Your task to perform on an android device: Google the capital of Mexico Image 0: 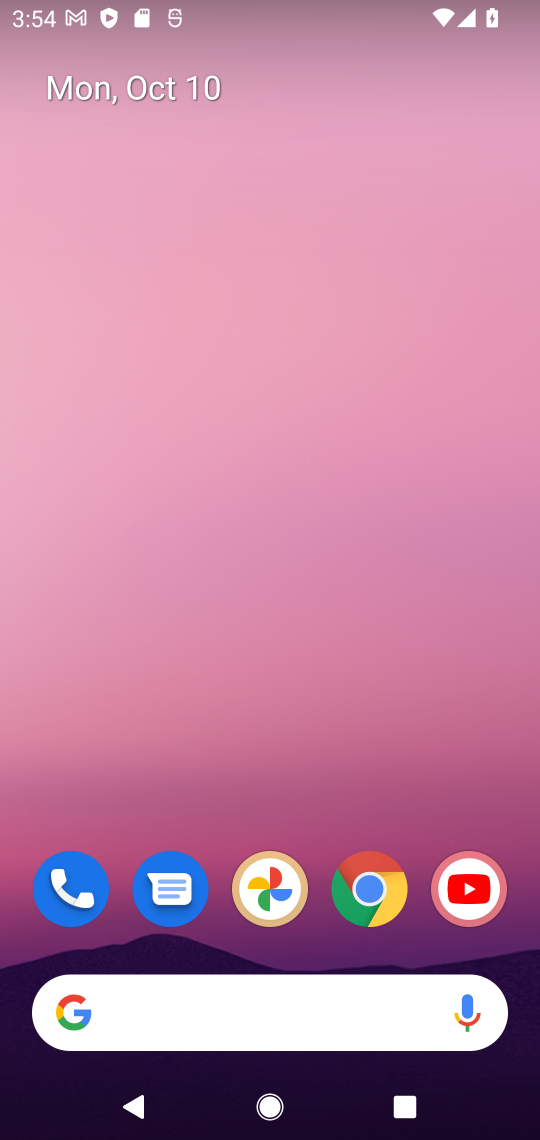
Step 0: click (369, 888)
Your task to perform on an android device: Google the capital of Mexico Image 1: 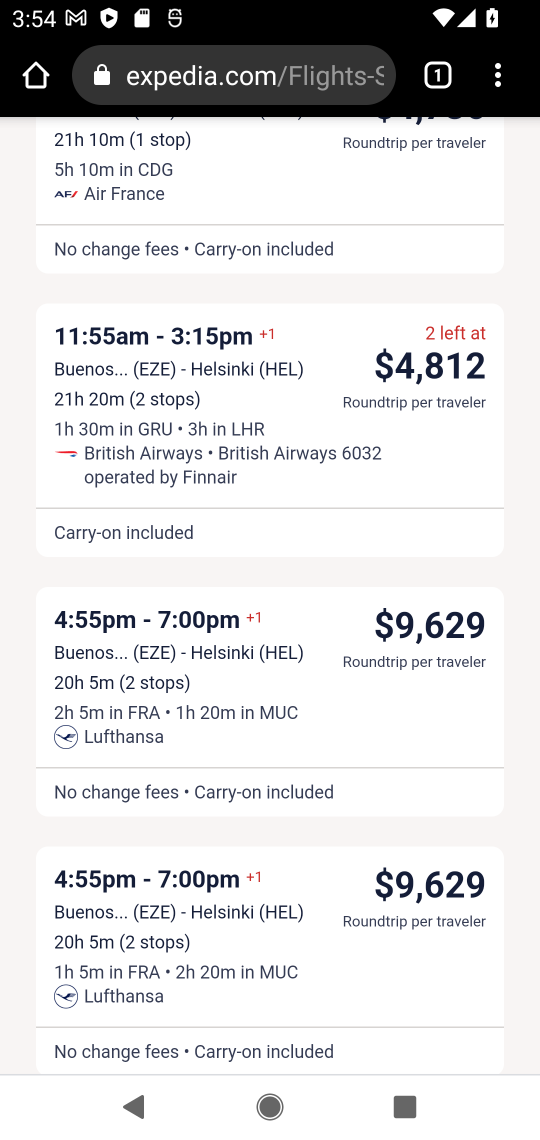
Step 1: click (297, 59)
Your task to perform on an android device: Google the capital of Mexico Image 2: 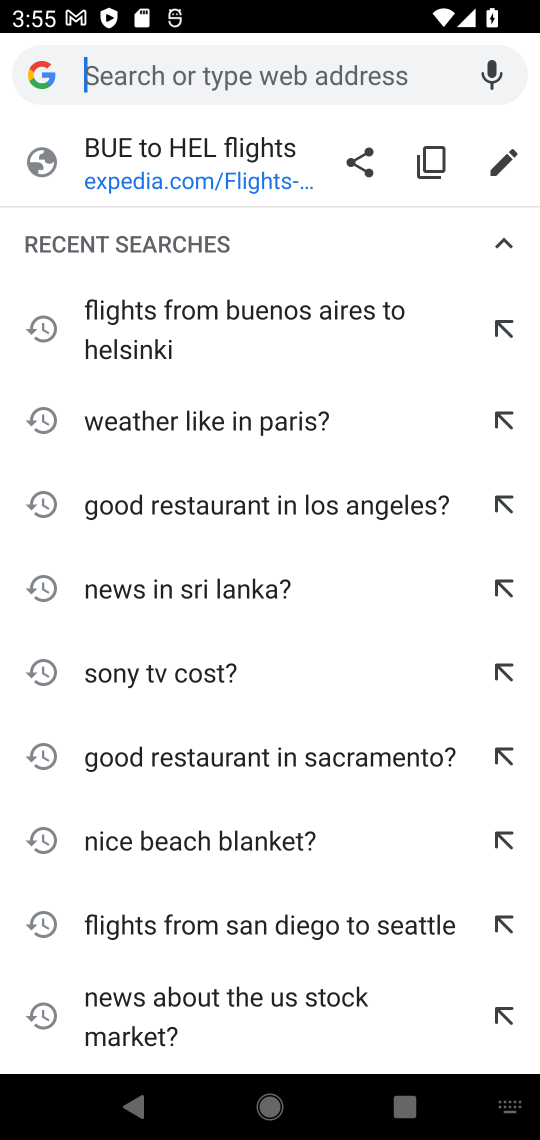
Step 2: type " capital of Mexico"
Your task to perform on an android device: Google the capital of Mexico Image 3: 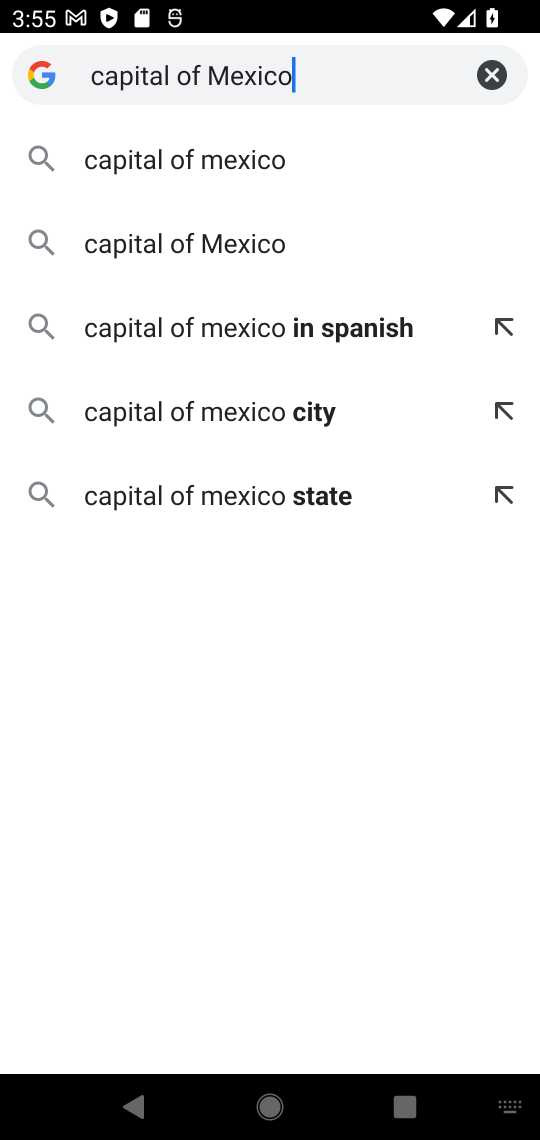
Step 3: click (174, 166)
Your task to perform on an android device: Google the capital of Mexico Image 4: 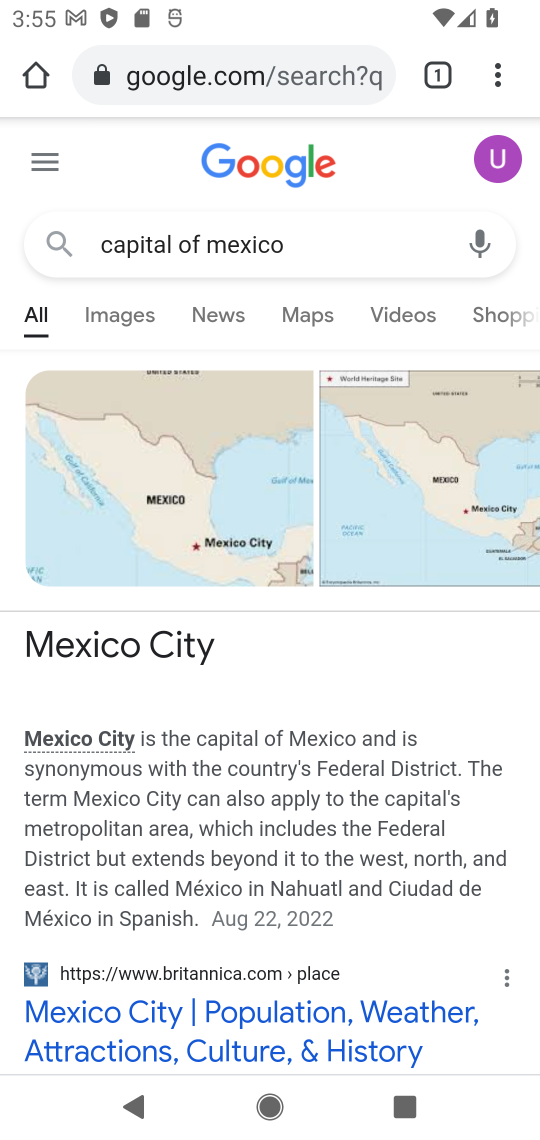
Step 4: task complete